Your task to perform on an android device: open wifi settings Image 0: 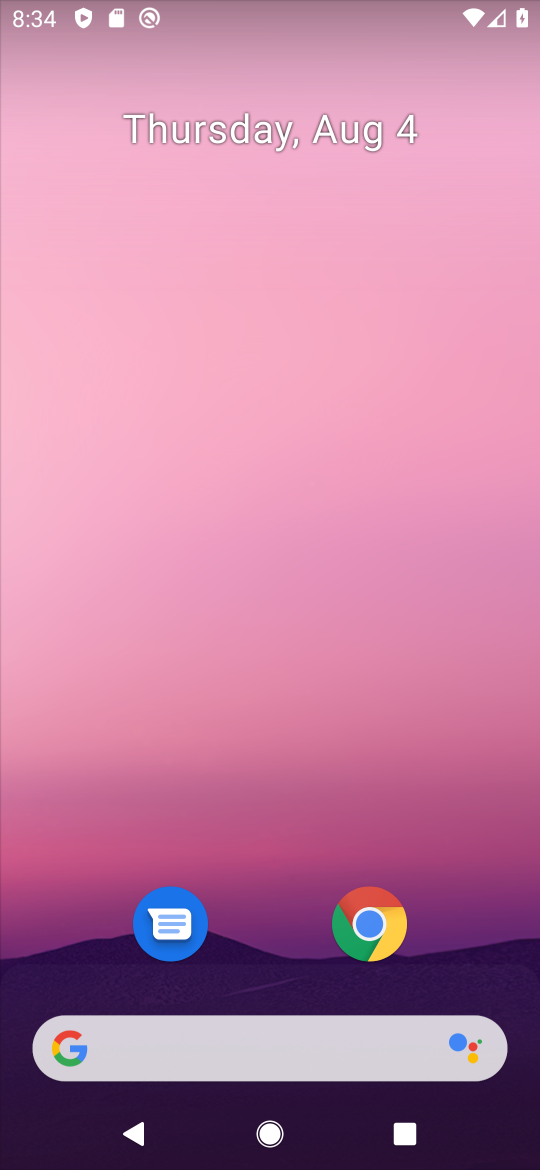
Step 0: drag from (233, 1007) to (55, 2)
Your task to perform on an android device: open wifi settings Image 1: 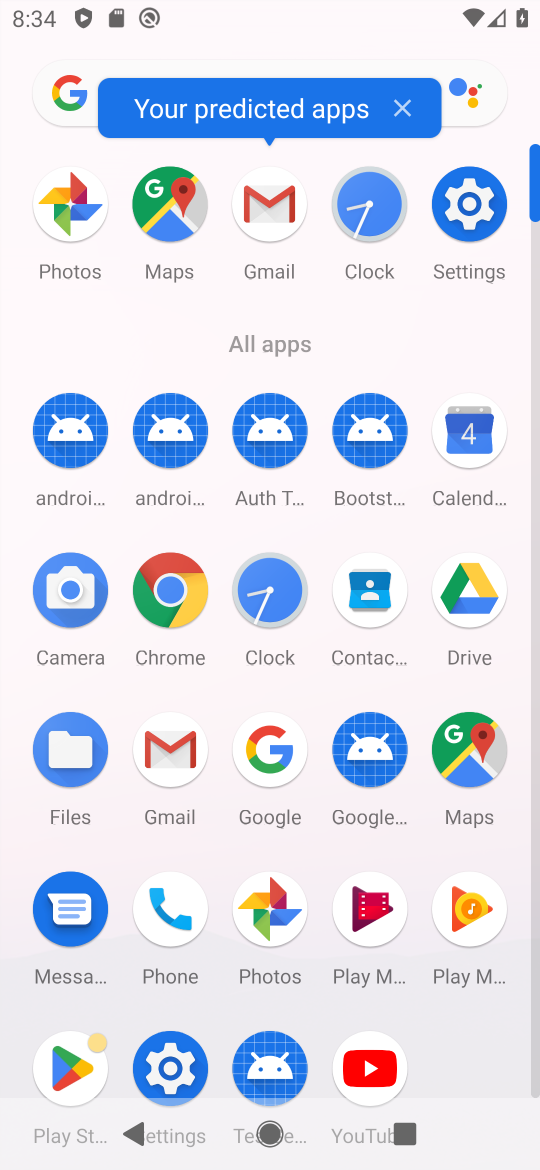
Step 1: click (478, 242)
Your task to perform on an android device: open wifi settings Image 2: 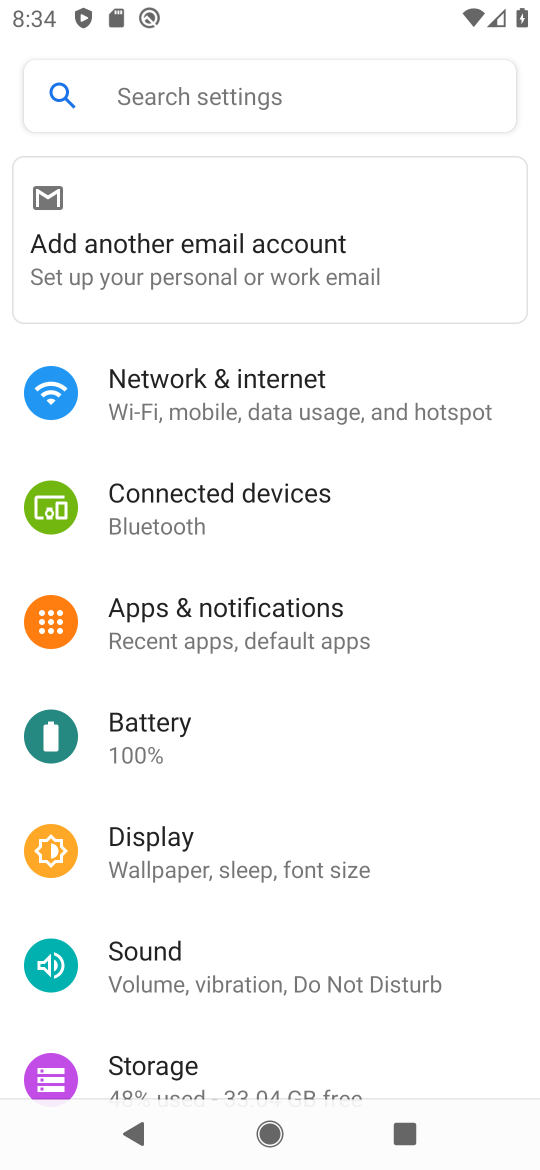
Step 2: click (328, 406)
Your task to perform on an android device: open wifi settings Image 3: 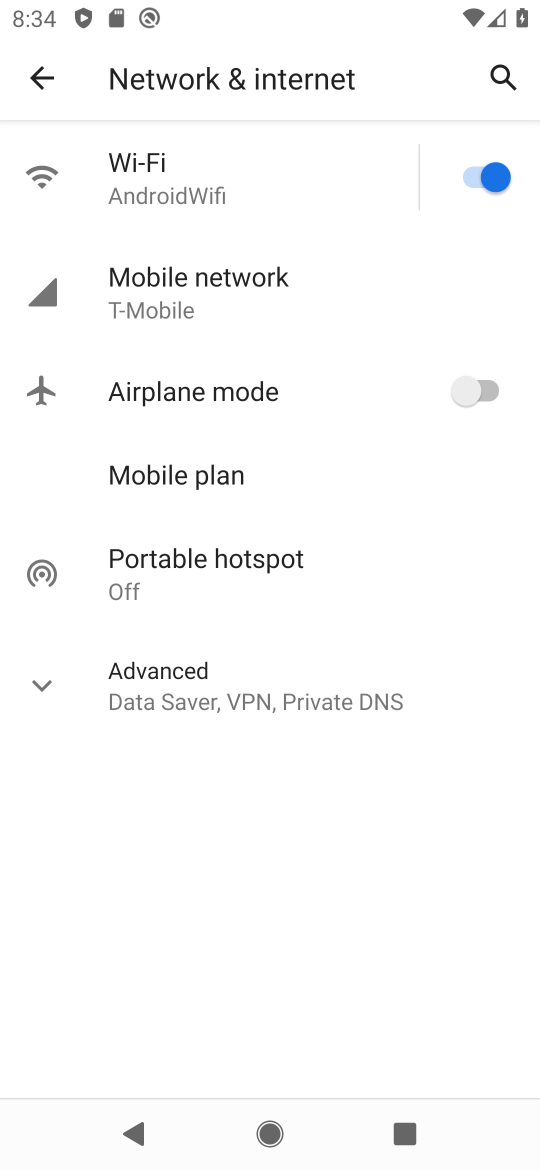
Step 3: click (146, 174)
Your task to perform on an android device: open wifi settings Image 4: 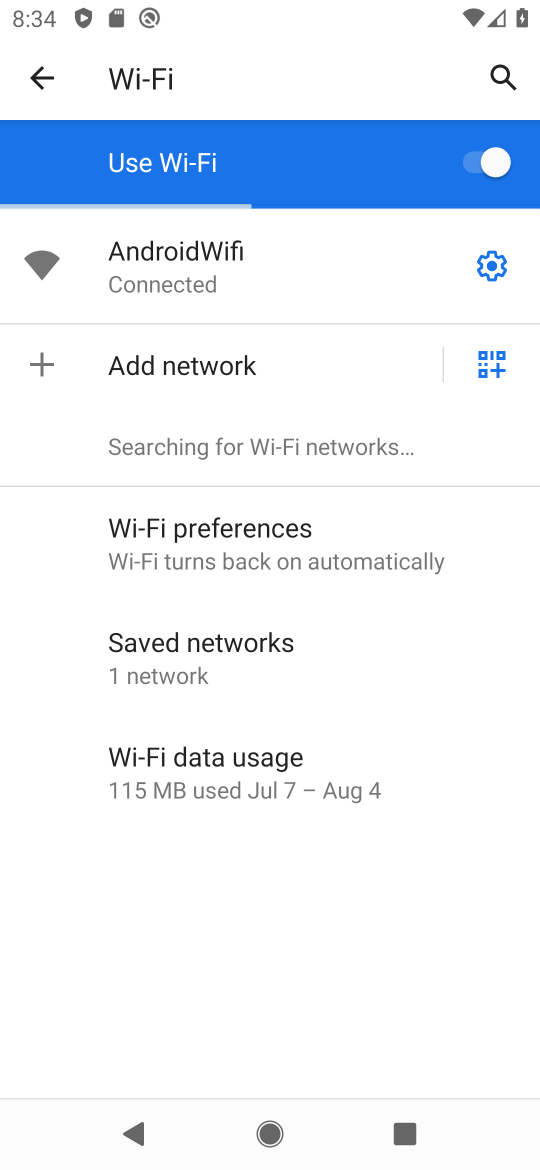
Step 4: task complete